Your task to perform on an android device: all mails in gmail Image 0: 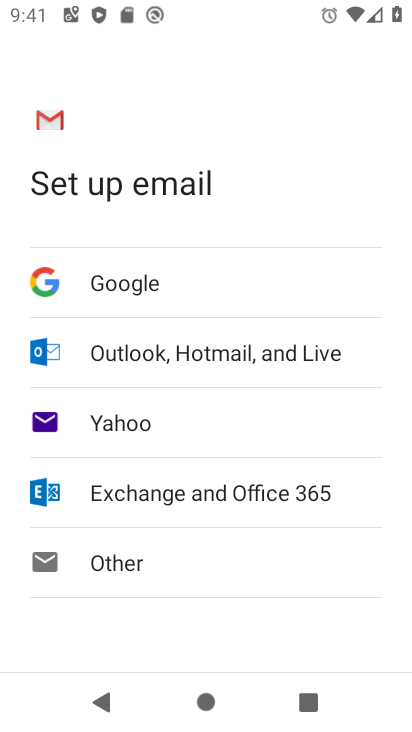
Step 0: press home button
Your task to perform on an android device: all mails in gmail Image 1: 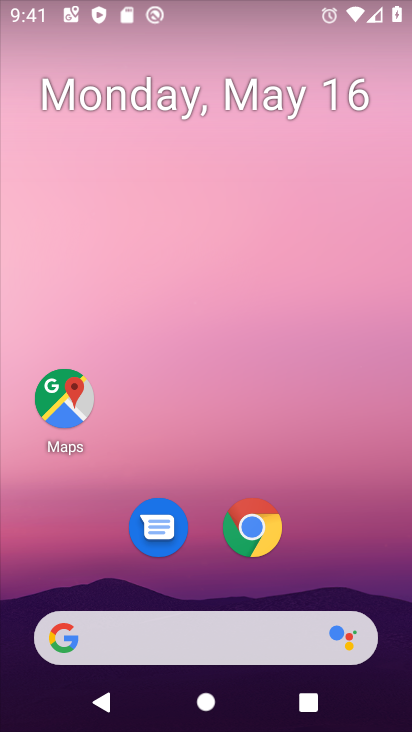
Step 1: drag from (334, 578) to (324, 62)
Your task to perform on an android device: all mails in gmail Image 2: 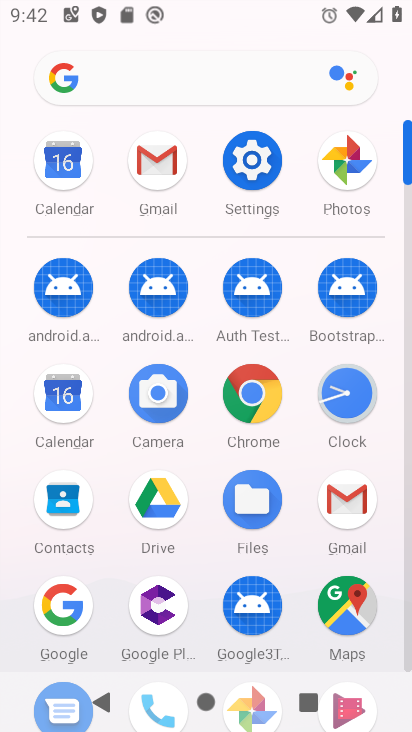
Step 2: click (160, 173)
Your task to perform on an android device: all mails in gmail Image 3: 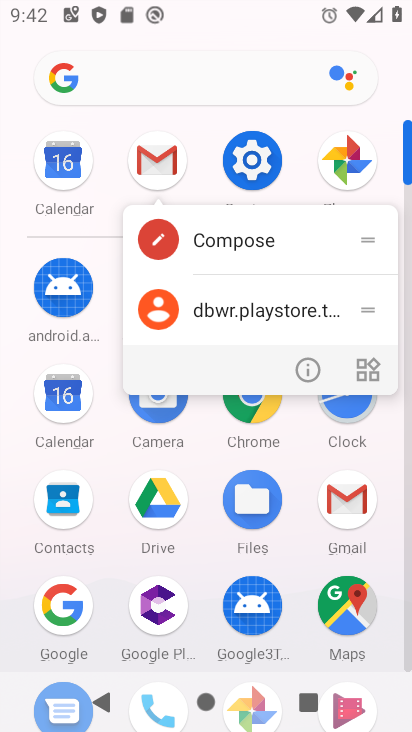
Step 3: click (156, 171)
Your task to perform on an android device: all mails in gmail Image 4: 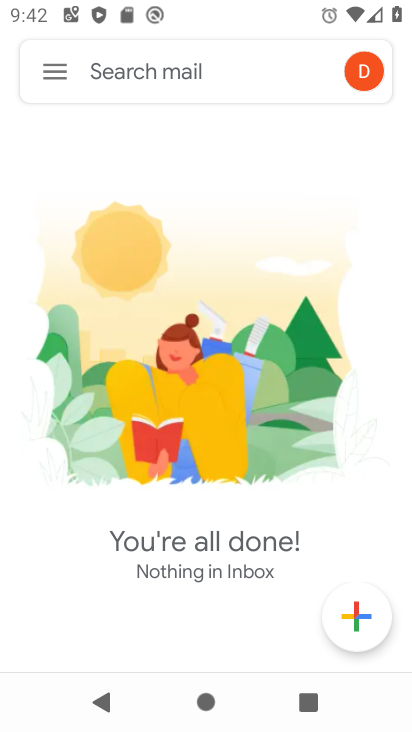
Step 4: click (45, 71)
Your task to perform on an android device: all mails in gmail Image 5: 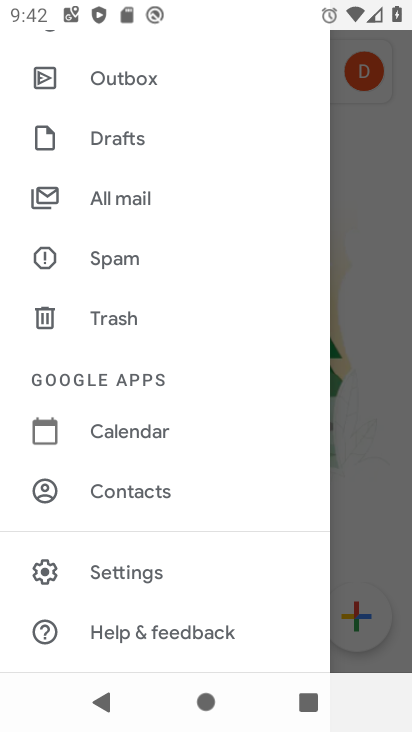
Step 5: click (105, 197)
Your task to perform on an android device: all mails in gmail Image 6: 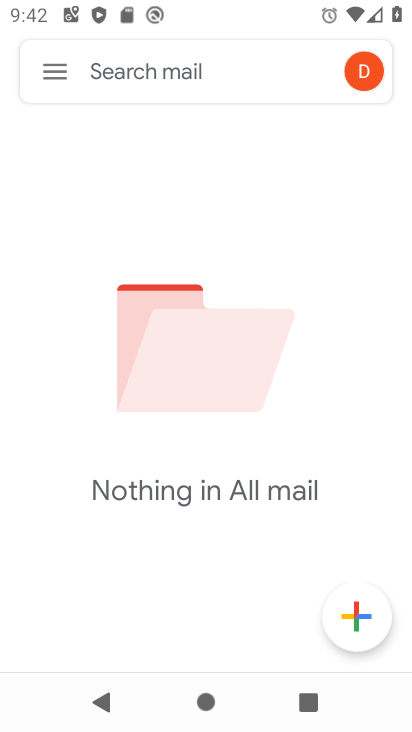
Step 6: task complete